Your task to perform on an android device: turn on translation in the chrome app Image 0: 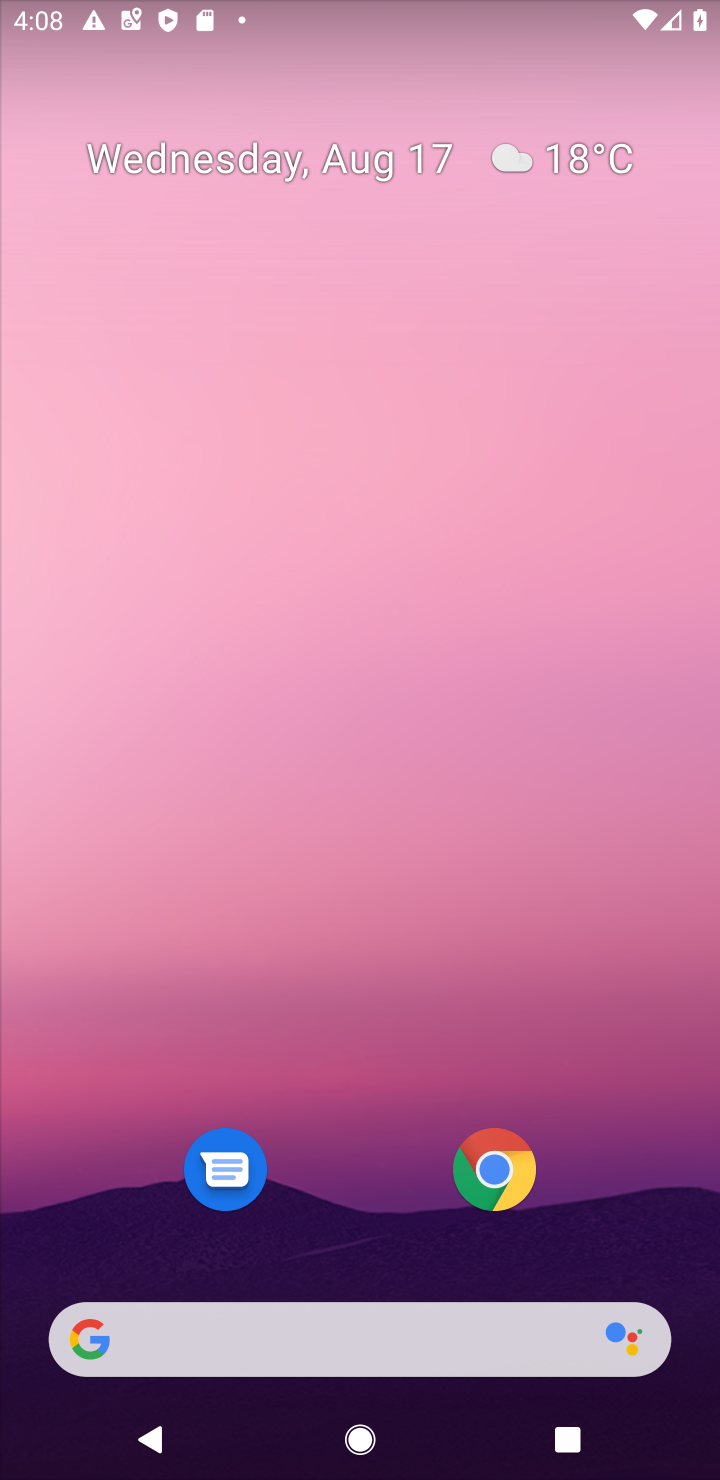
Step 0: click (498, 1159)
Your task to perform on an android device: turn on translation in the chrome app Image 1: 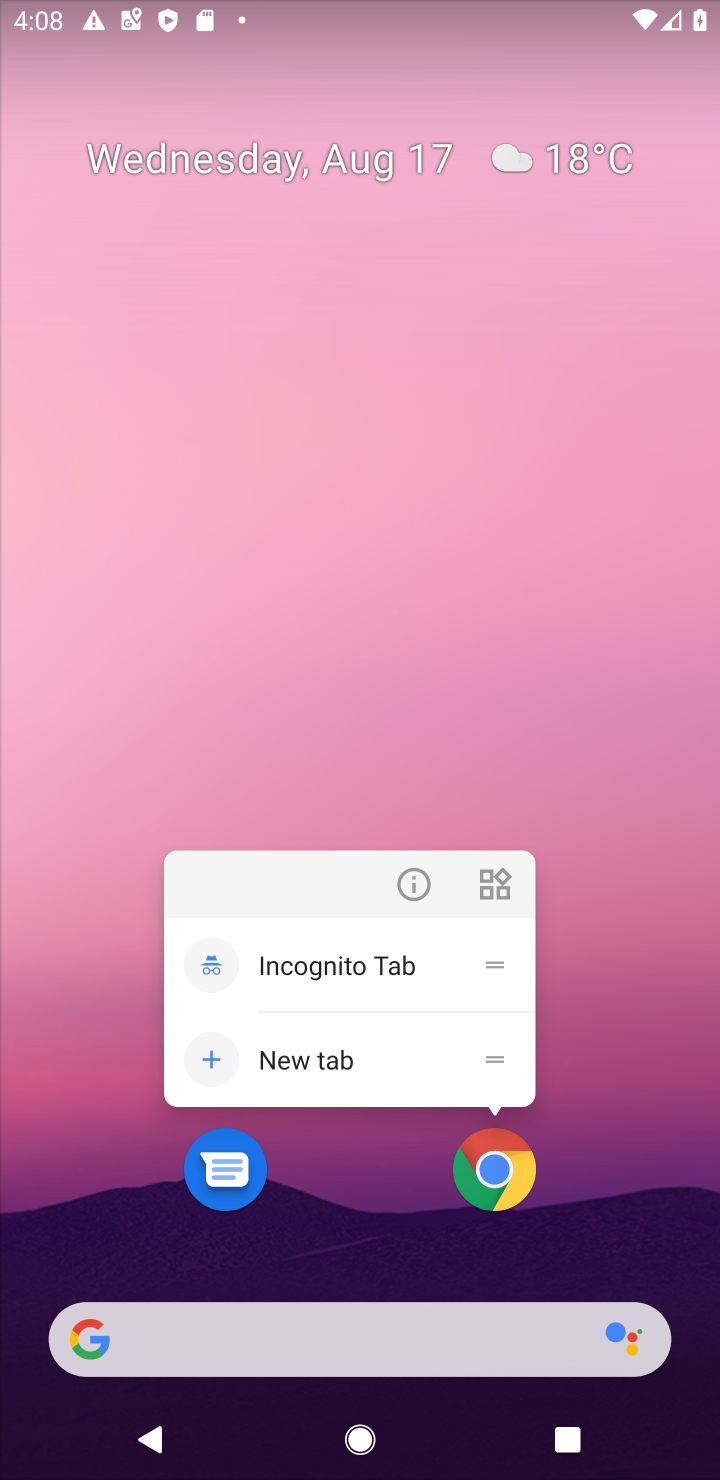
Step 1: click (506, 1164)
Your task to perform on an android device: turn on translation in the chrome app Image 2: 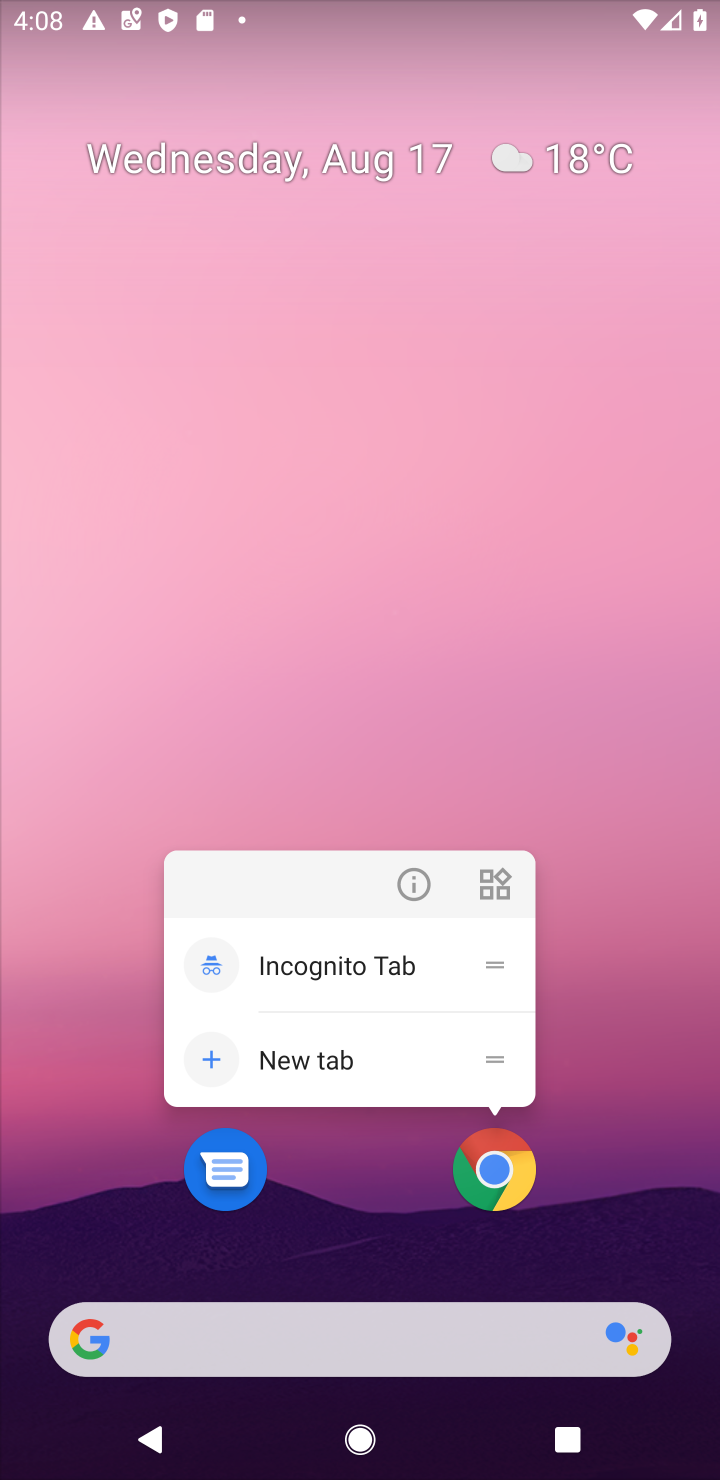
Step 2: click (556, 1226)
Your task to perform on an android device: turn on translation in the chrome app Image 3: 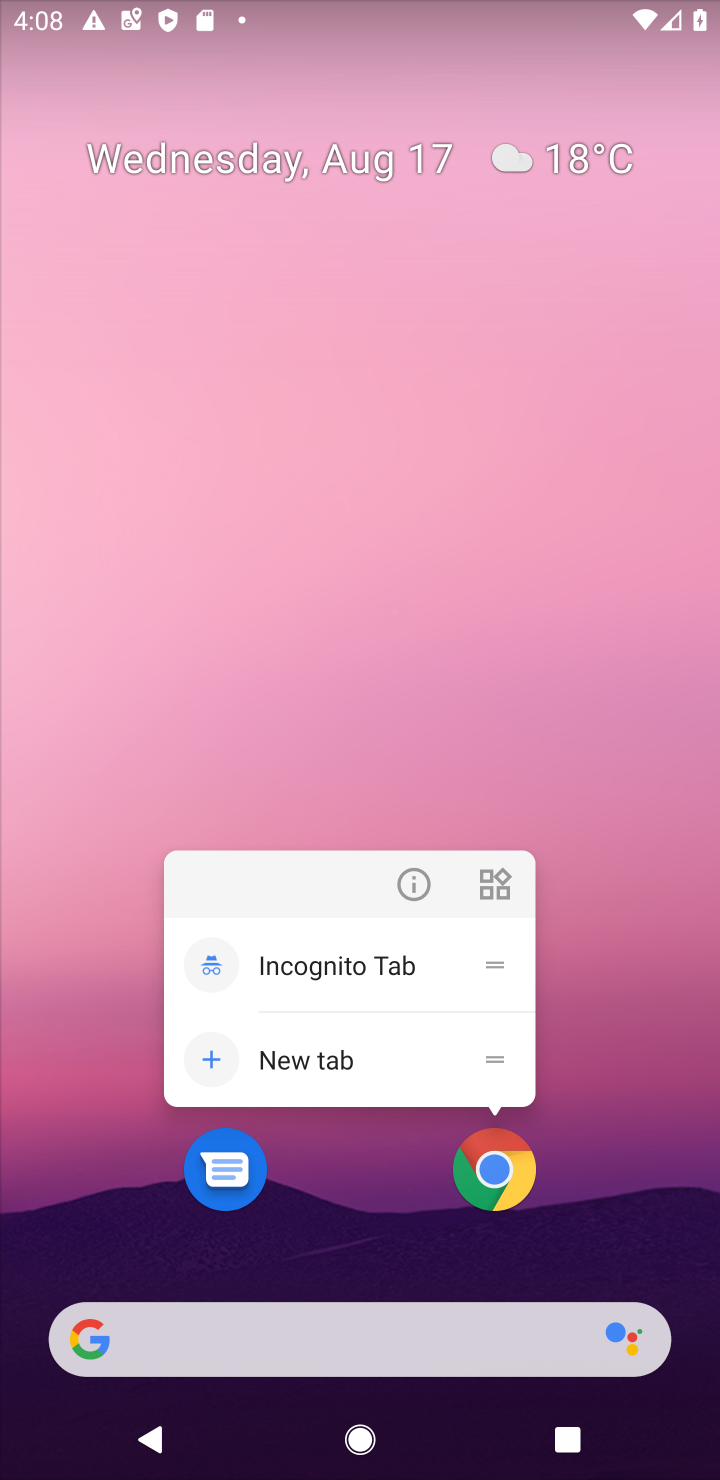
Step 3: drag from (560, 1144) to (26, 1278)
Your task to perform on an android device: turn on translation in the chrome app Image 4: 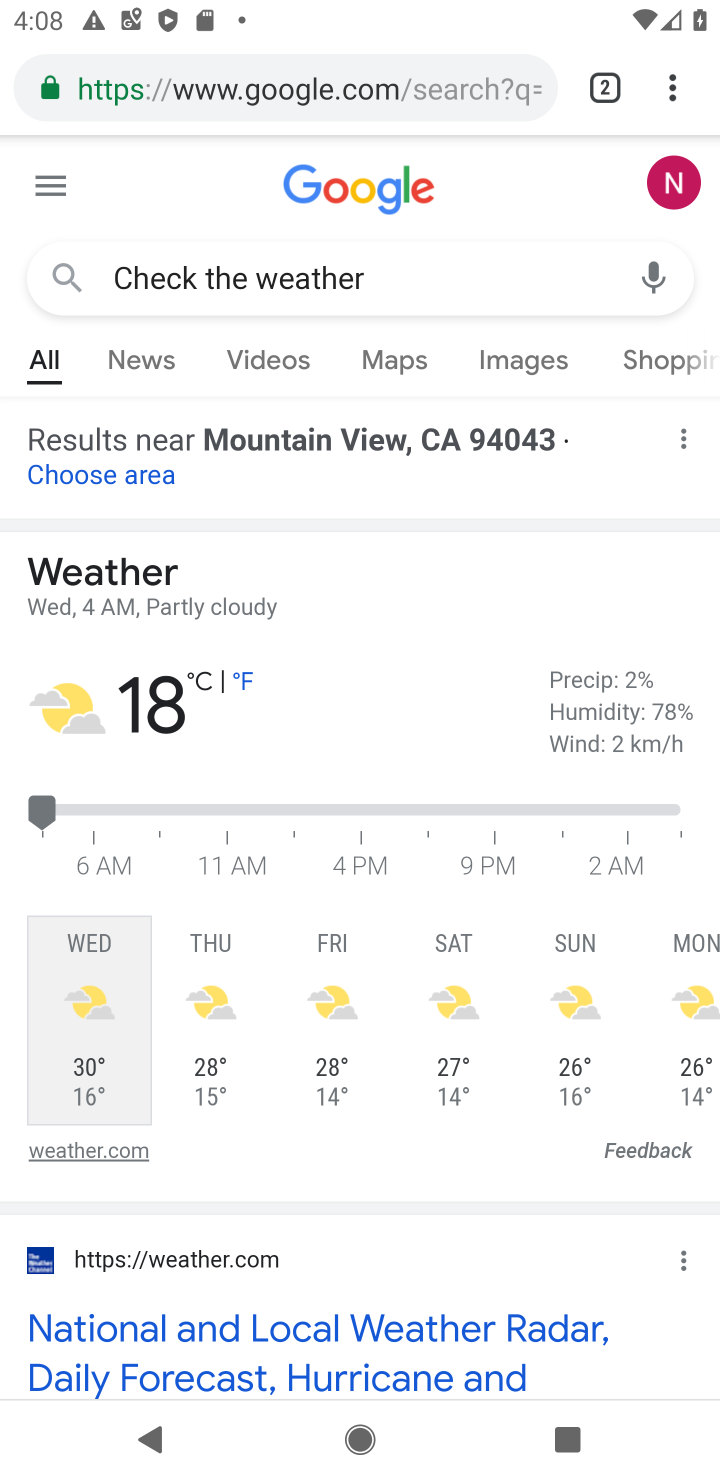
Step 4: drag from (667, 78) to (383, 820)
Your task to perform on an android device: turn on translation in the chrome app Image 5: 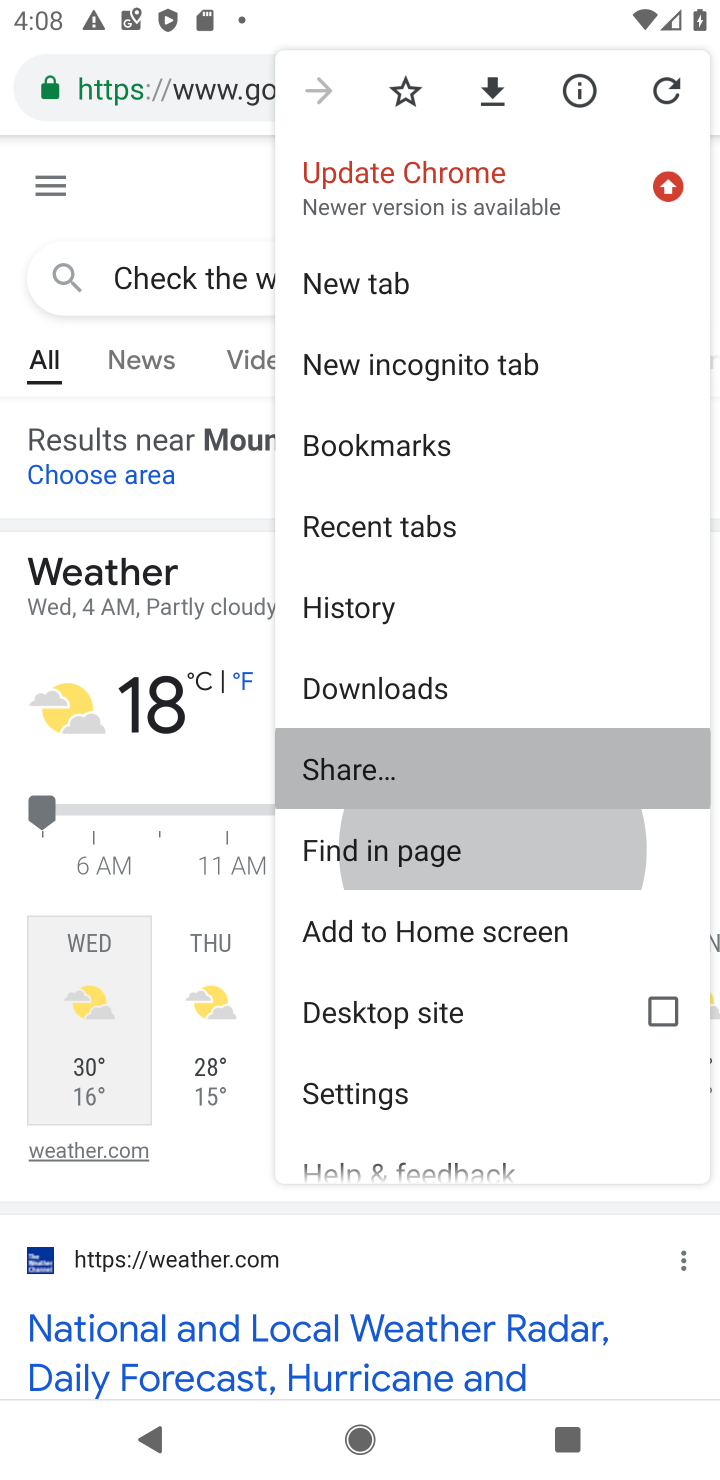
Step 5: drag from (387, 994) to (718, 98)
Your task to perform on an android device: turn on translation in the chrome app Image 6: 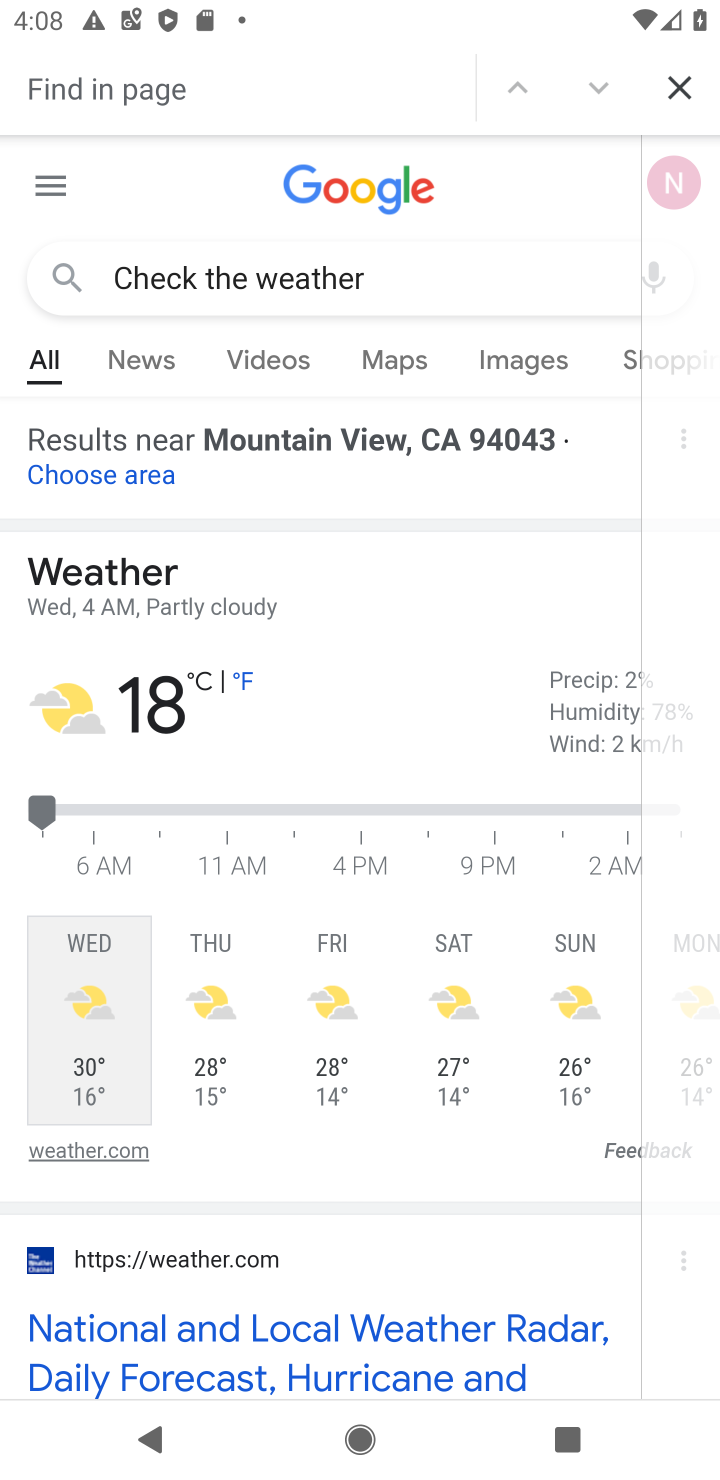
Step 6: click (688, 87)
Your task to perform on an android device: turn on translation in the chrome app Image 7: 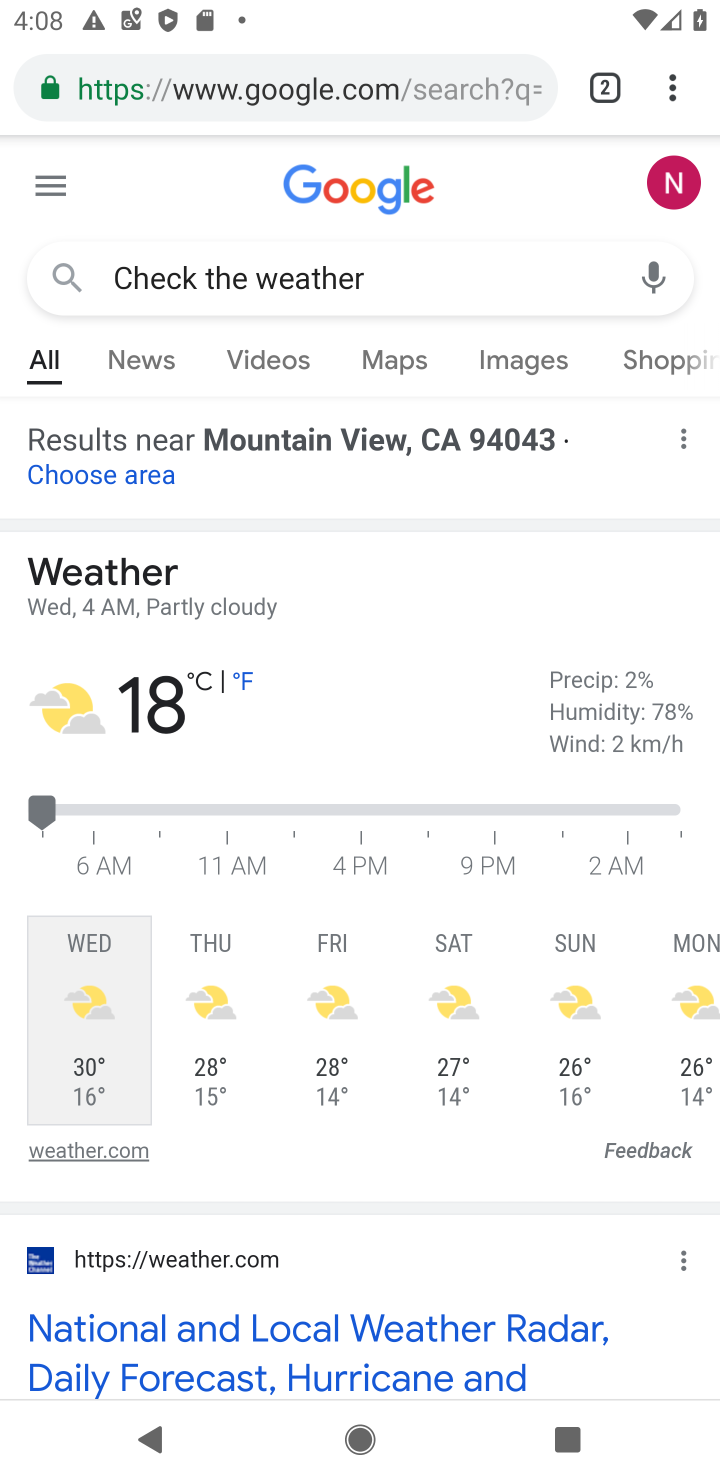
Step 7: drag from (665, 85) to (353, 1098)
Your task to perform on an android device: turn on translation in the chrome app Image 8: 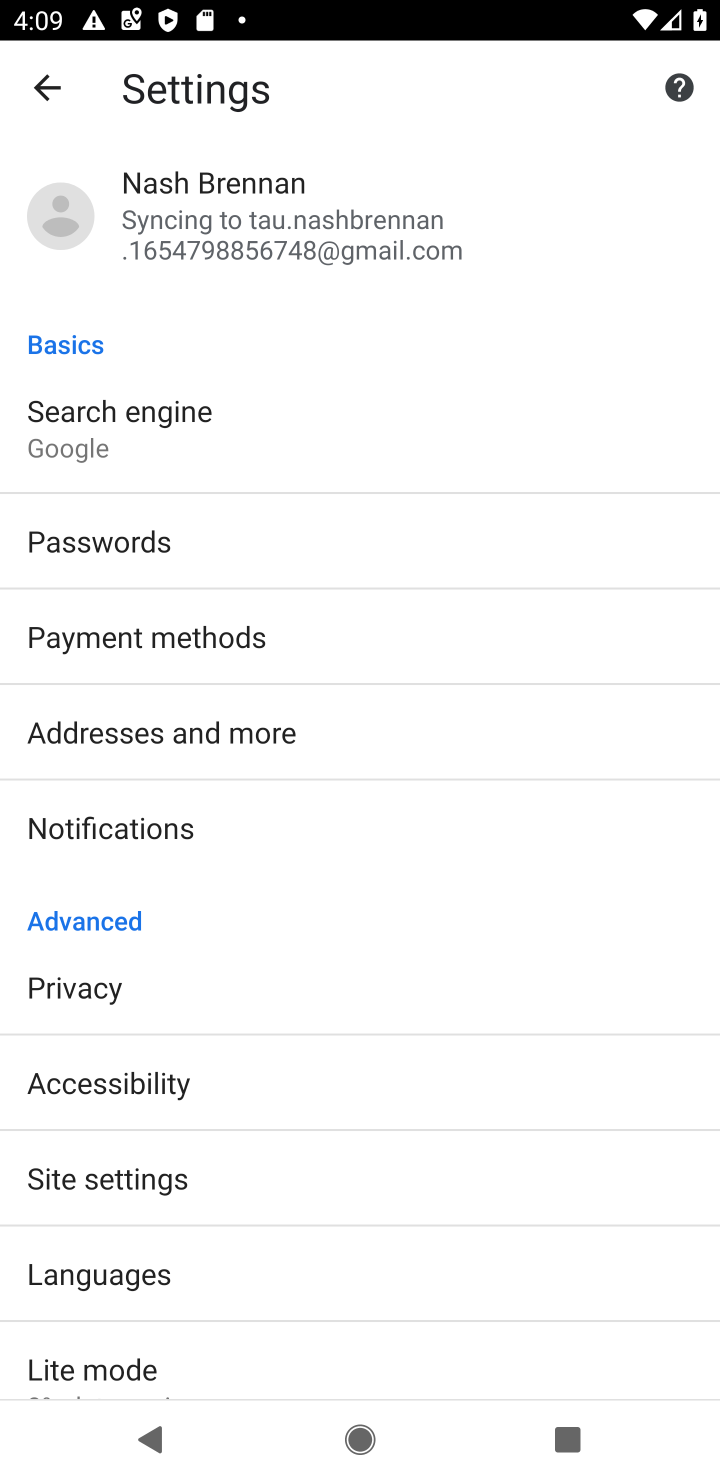
Step 8: click (100, 1277)
Your task to perform on an android device: turn on translation in the chrome app Image 9: 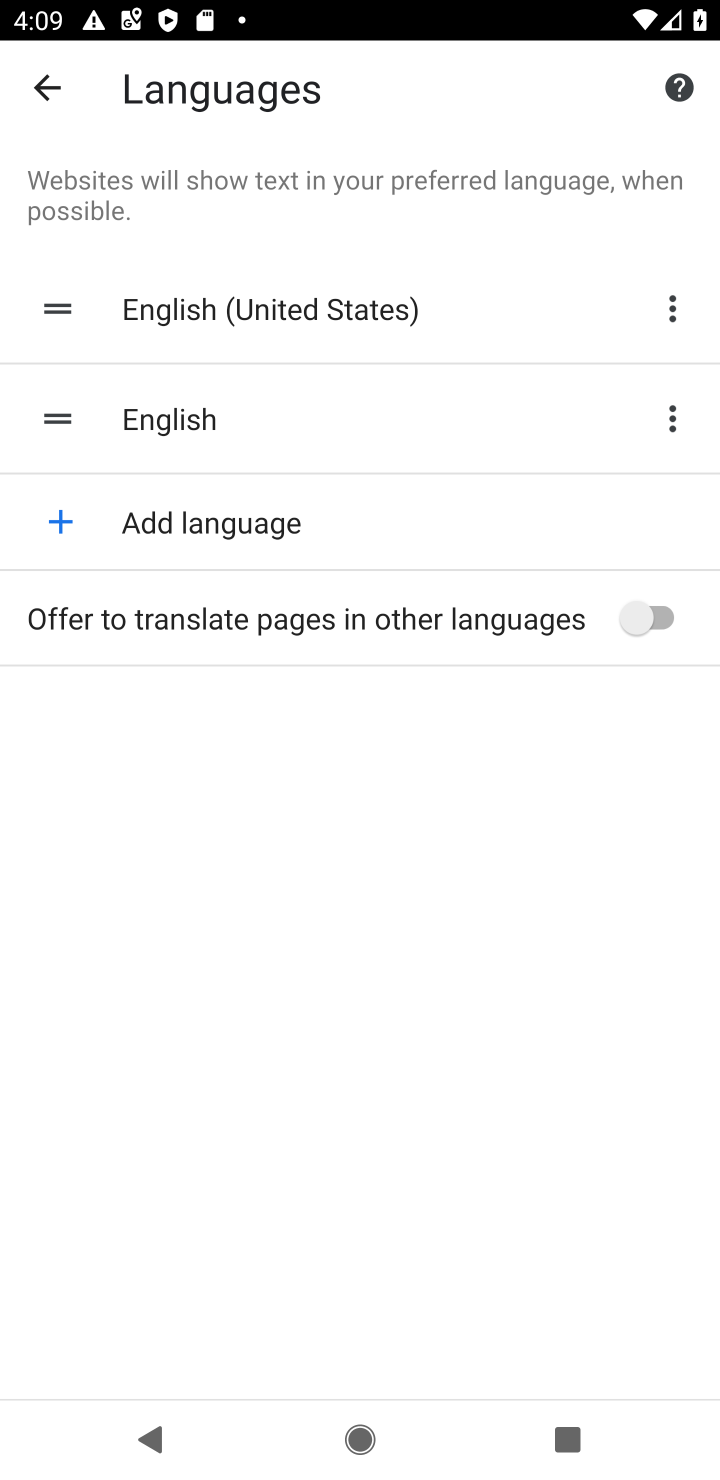
Step 9: click (626, 627)
Your task to perform on an android device: turn on translation in the chrome app Image 10: 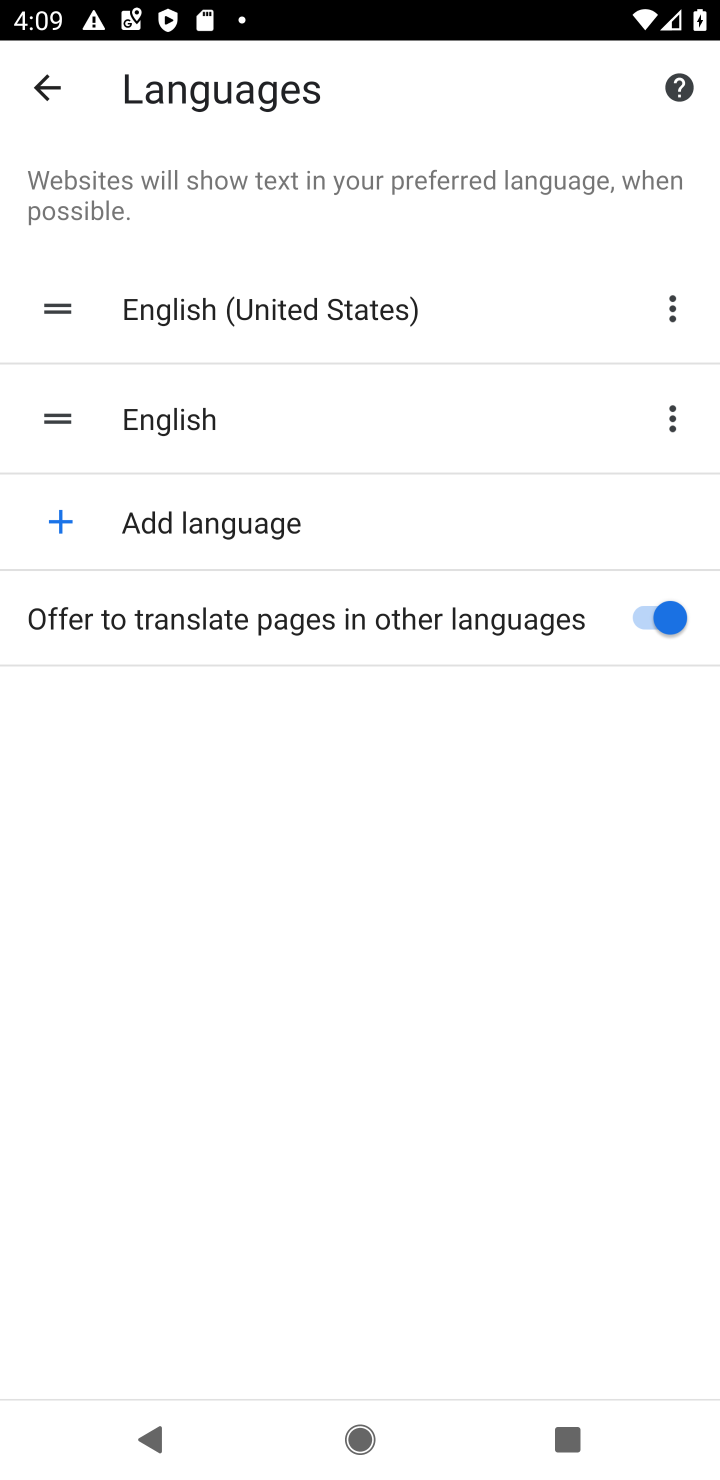
Step 10: task complete